Your task to perform on an android device: choose inbox layout in the gmail app Image 0: 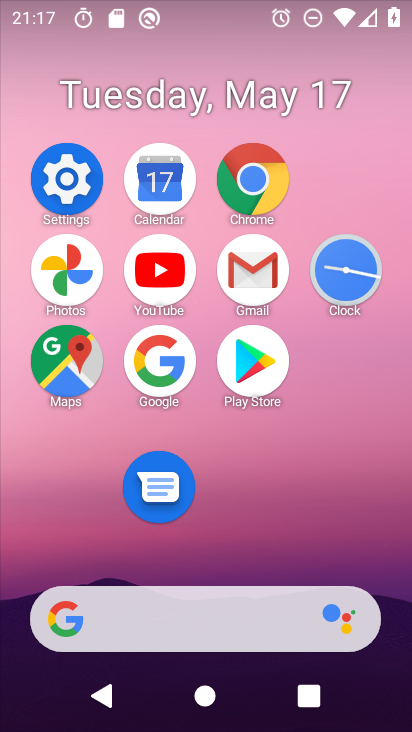
Step 0: click (246, 281)
Your task to perform on an android device: choose inbox layout in the gmail app Image 1: 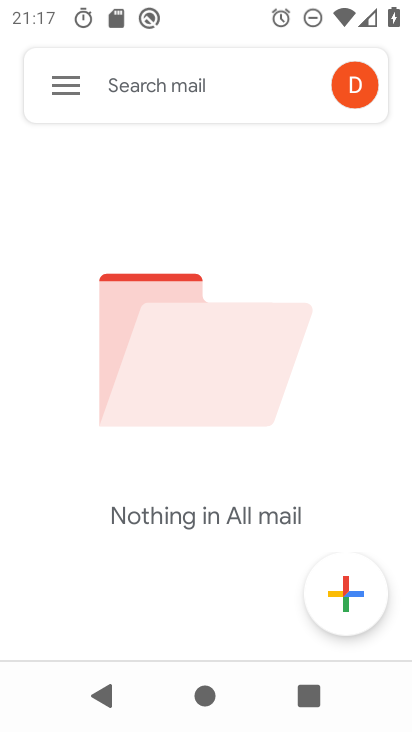
Step 1: click (76, 85)
Your task to perform on an android device: choose inbox layout in the gmail app Image 2: 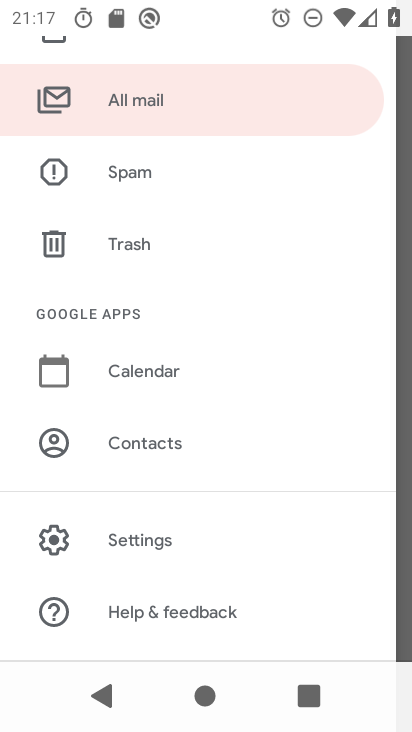
Step 2: click (202, 552)
Your task to perform on an android device: choose inbox layout in the gmail app Image 3: 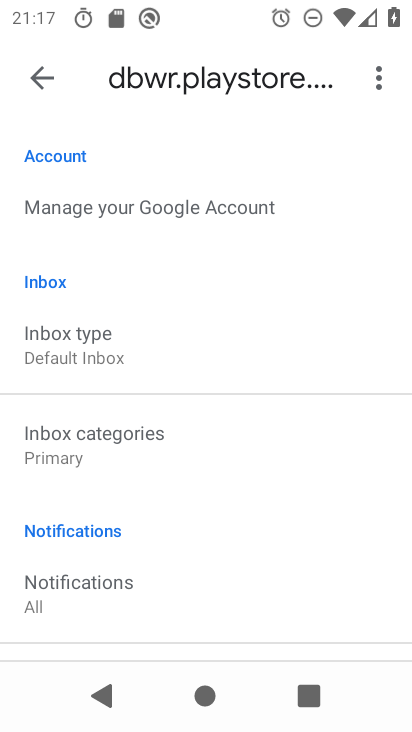
Step 3: click (152, 348)
Your task to perform on an android device: choose inbox layout in the gmail app Image 4: 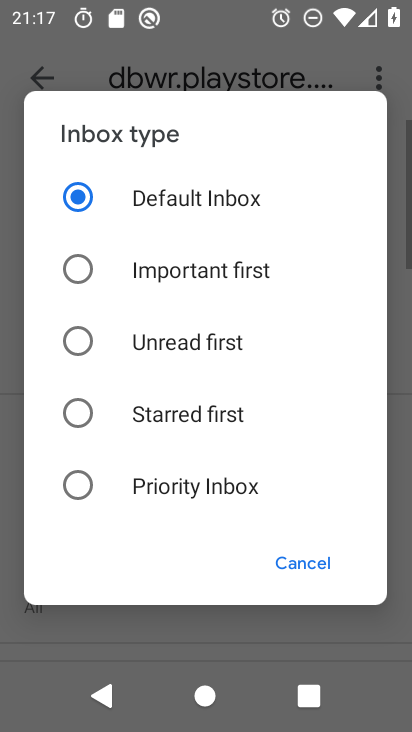
Step 4: task complete